Your task to perform on an android device: Add "lg ultragear" to the cart on amazon.com Image 0: 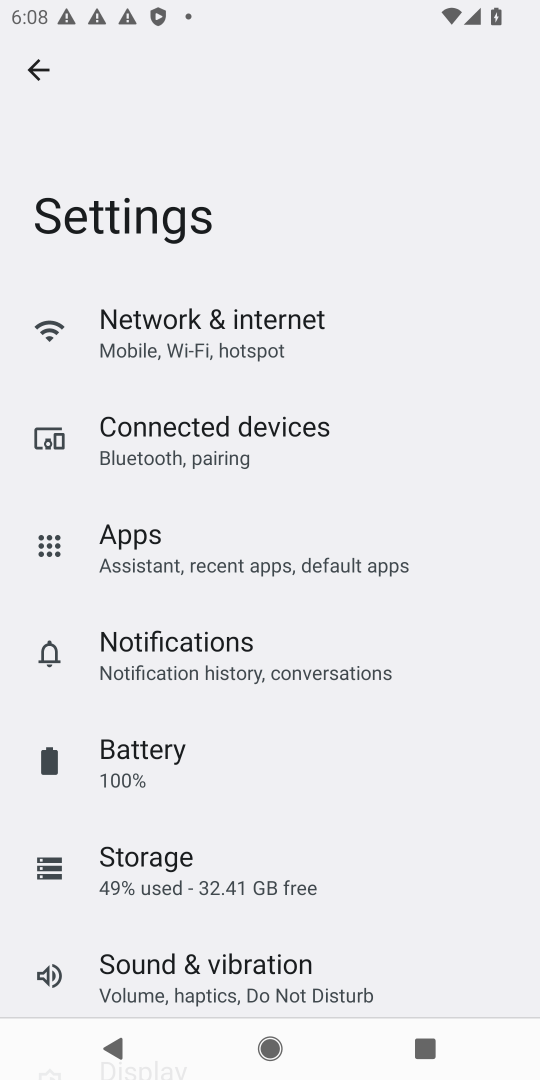
Step 0: press home button
Your task to perform on an android device: Add "lg ultragear" to the cart on amazon.com Image 1: 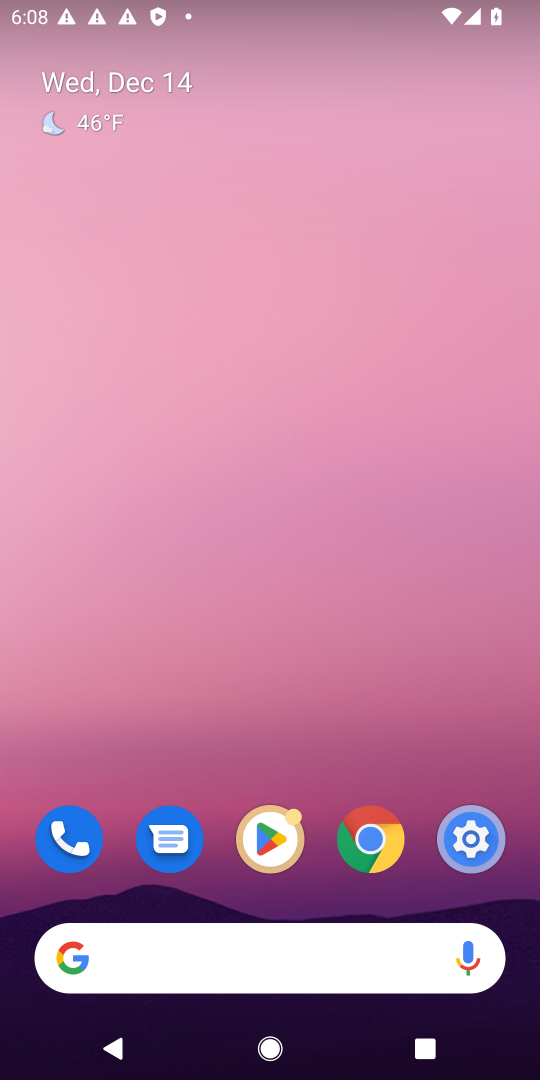
Step 1: click (266, 940)
Your task to perform on an android device: Add "lg ultragear" to the cart on amazon.com Image 2: 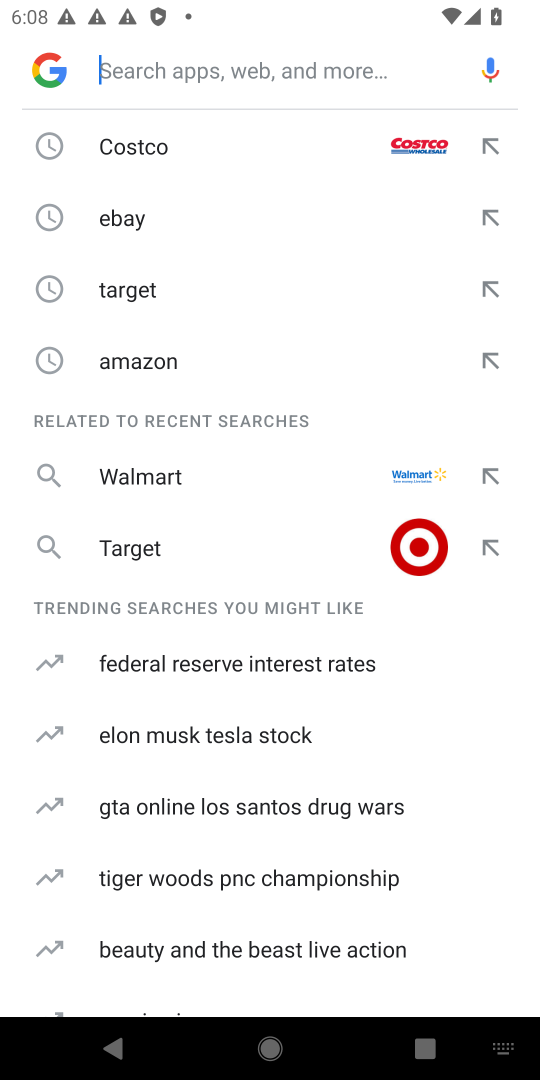
Step 2: click (219, 365)
Your task to perform on an android device: Add "lg ultragear" to the cart on amazon.com Image 3: 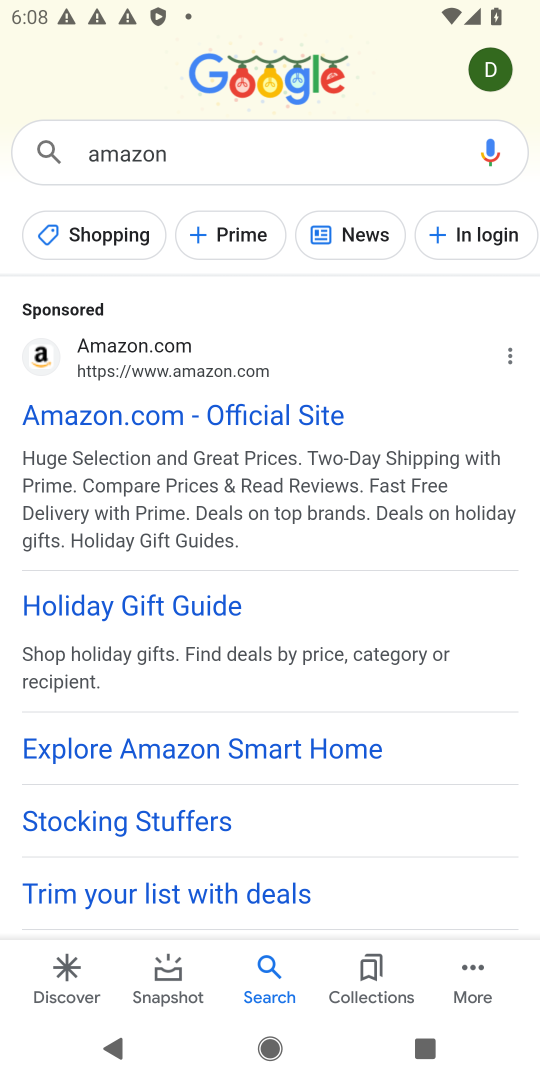
Step 3: click (219, 414)
Your task to perform on an android device: Add "lg ultragear" to the cart on amazon.com Image 4: 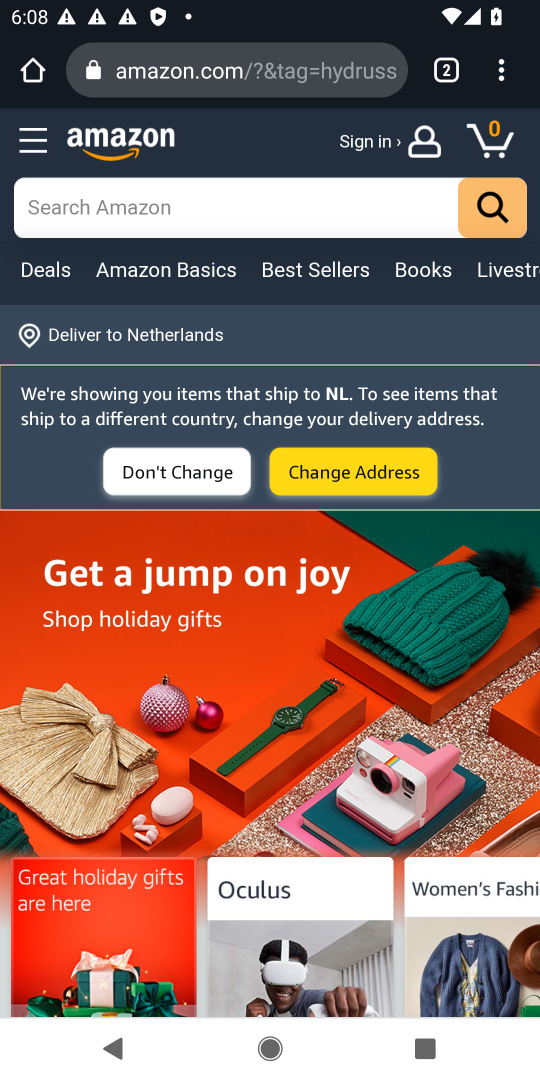
Step 4: click (73, 193)
Your task to perform on an android device: Add "lg ultragear" to the cart on amazon.com Image 5: 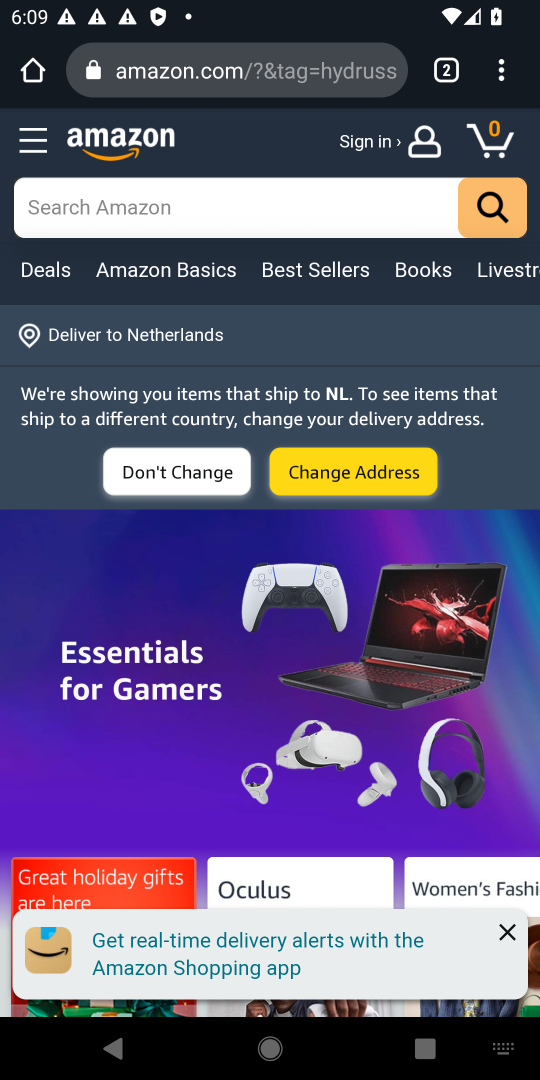
Step 5: type "lg ultragear"
Your task to perform on an android device: Add "lg ultragear" to the cart on amazon.com Image 6: 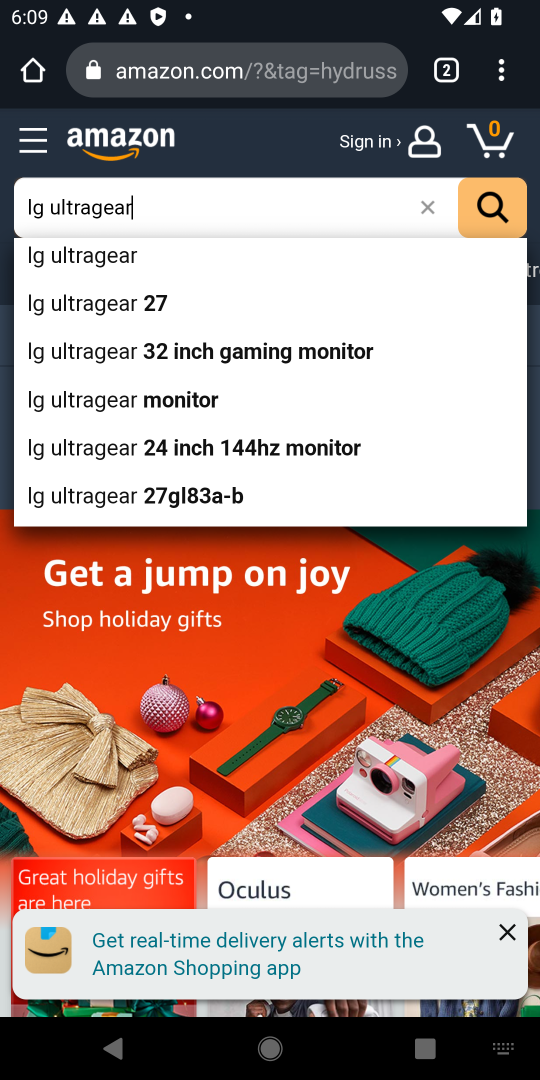
Step 6: click (487, 208)
Your task to perform on an android device: Add "lg ultragear" to the cart on amazon.com Image 7: 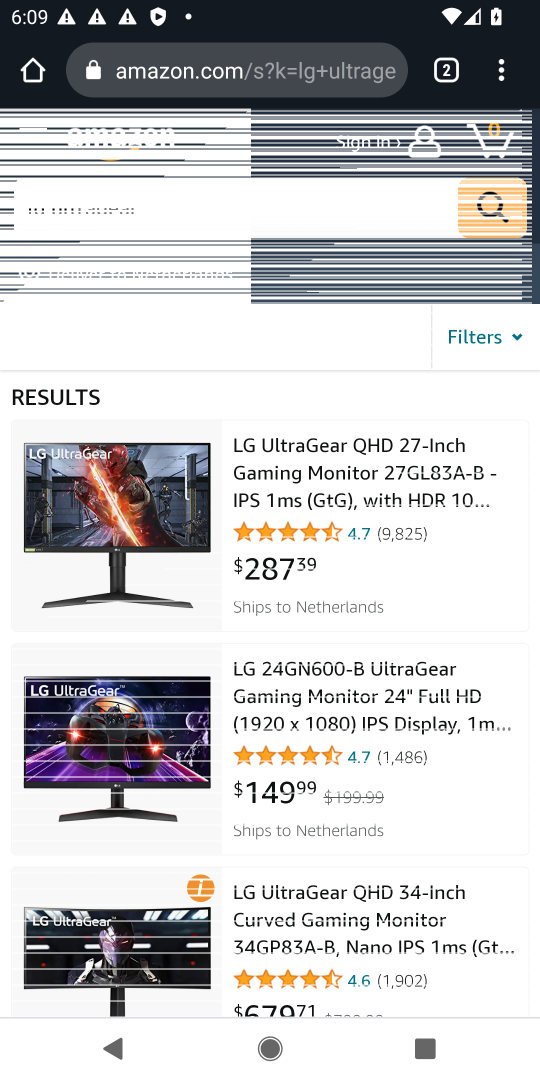
Step 7: click (430, 505)
Your task to perform on an android device: Add "lg ultragear" to the cart on amazon.com Image 8: 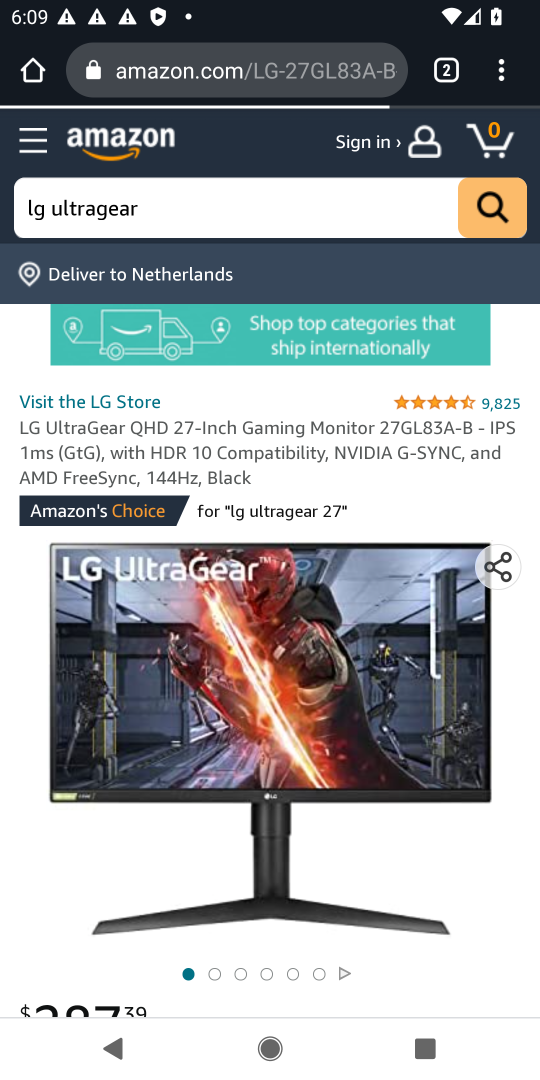
Step 8: drag from (297, 666) to (274, 444)
Your task to perform on an android device: Add "lg ultragear" to the cart on amazon.com Image 9: 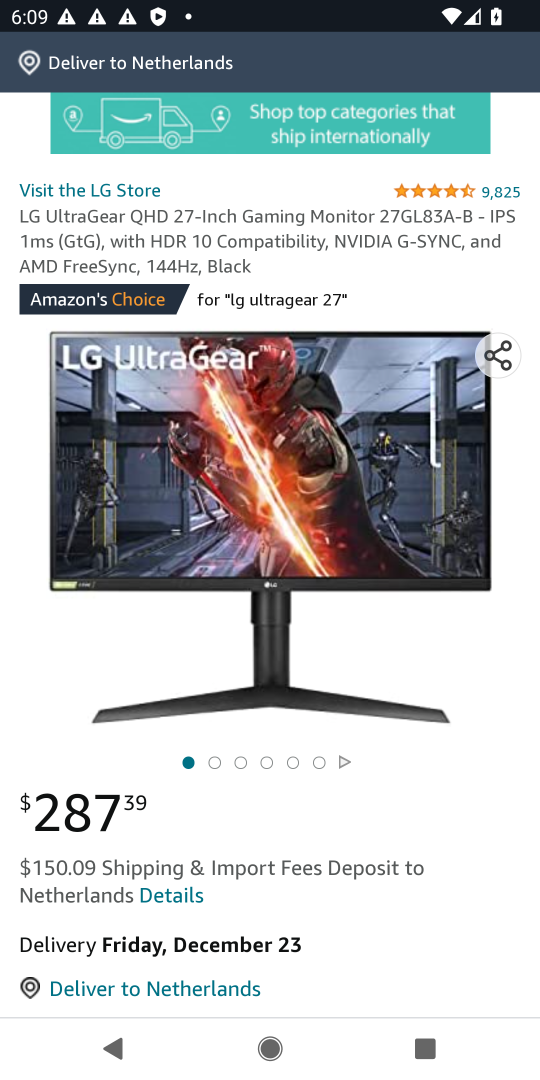
Step 9: drag from (387, 850) to (398, 579)
Your task to perform on an android device: Add "lg ultragear" to the cart on amazon.com Image 10: 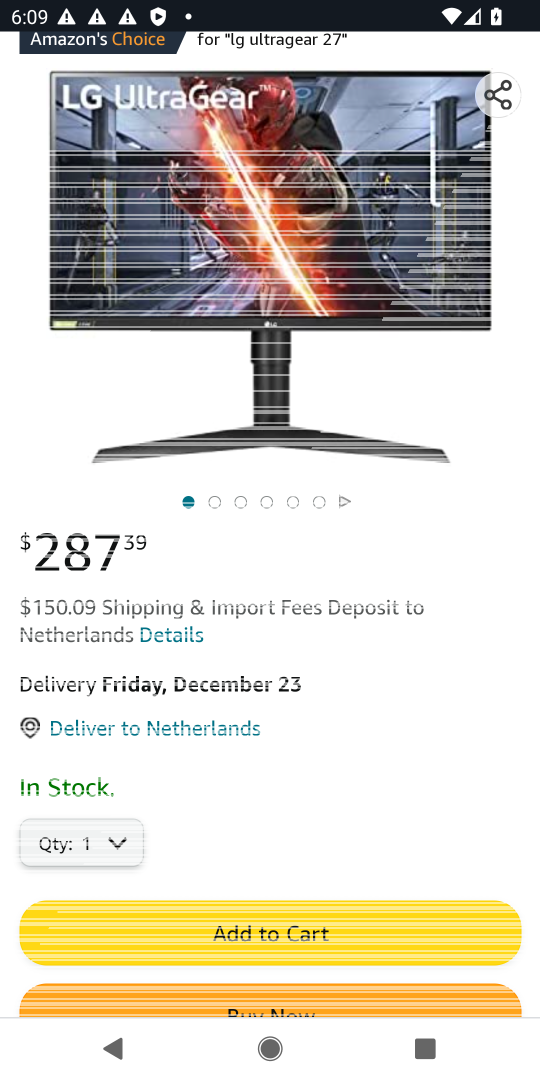
Step 10: click (434, 907)
Your task to perform on an android device: Add "lg ultragear" to the cart on amazon.com Image 11: 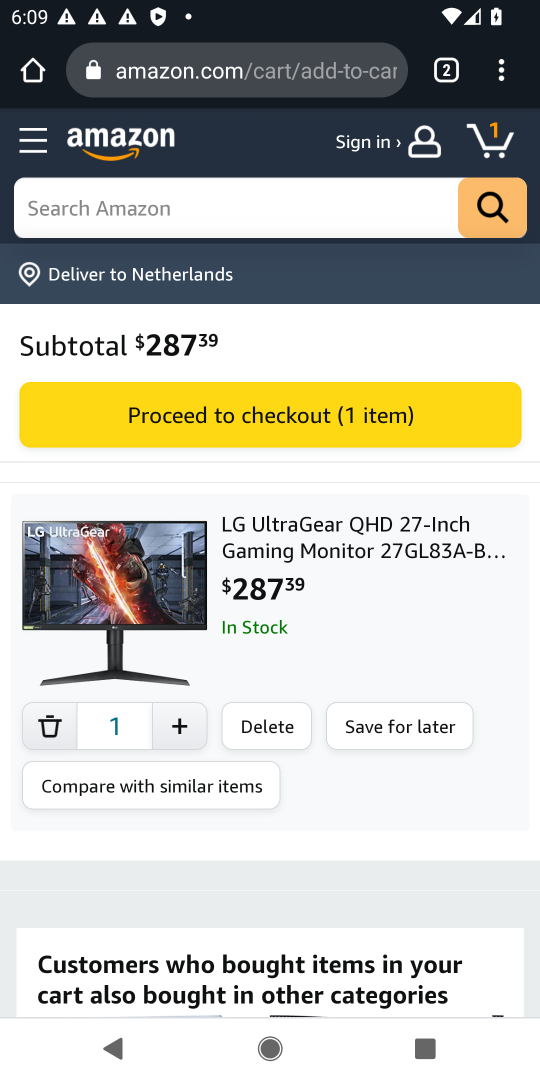
Step 11: task complete